Your task to perform on an android device: turn on priority inbox in the gmail app Image 0: 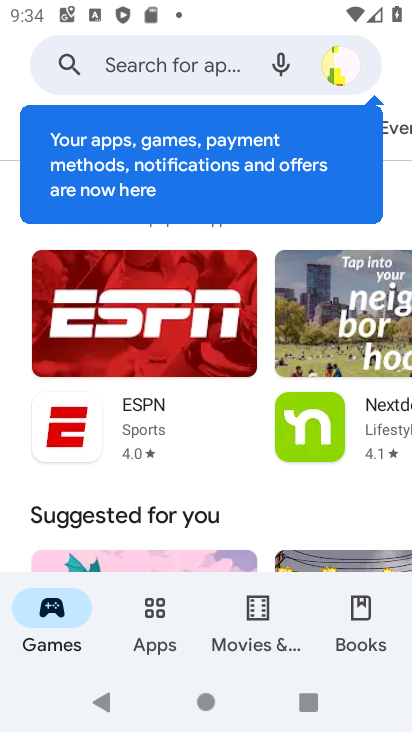
Step 0: press home button
Your task to perform on an android device: turn on priority inbox in the gmail app Image 1: 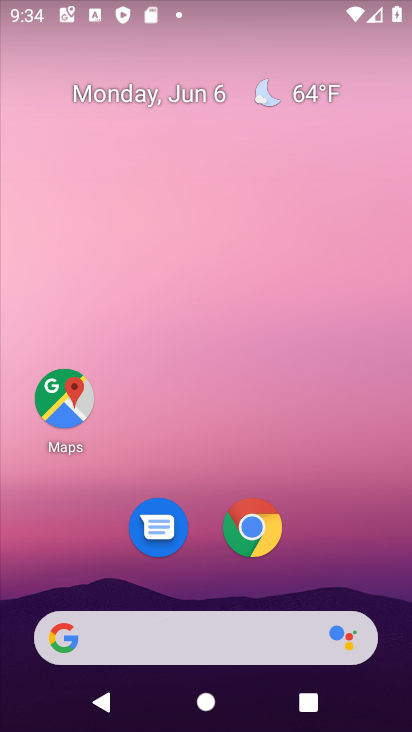
Step 1: drag from (227, 449) to (267, 210)
Your task to perform on an android device: turn on priority inbox in the gmail app Image 2: 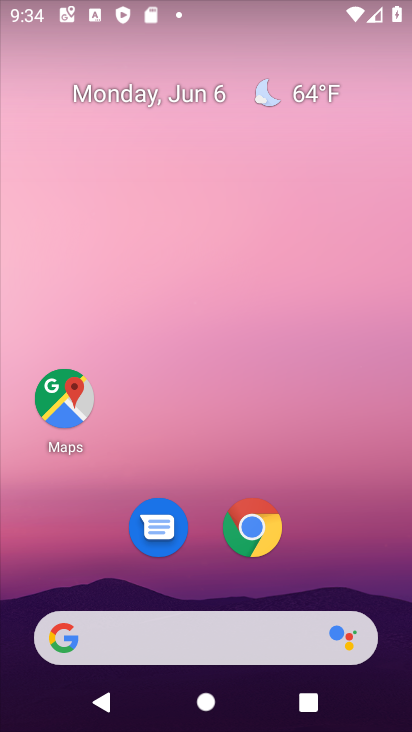
Step 2: drag from (239, 570) to (289, 175)
Your task to perform on an android device: turn on priority inbox in the gmail app Image 3: 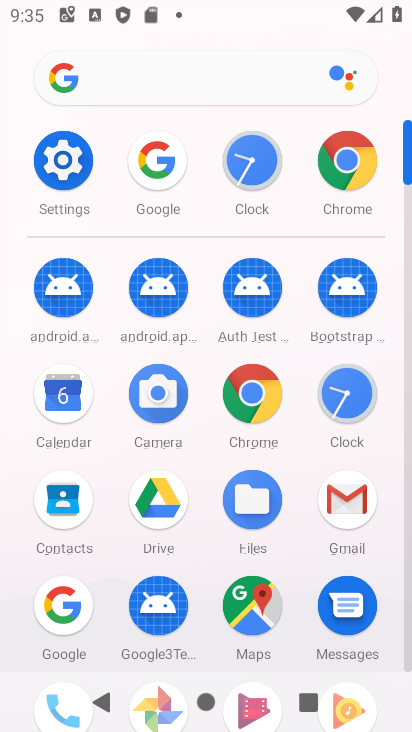
Step 3: click (351, 507)
Your task to perform on an android device: turn on priority inbox in the gmail app Image 4: 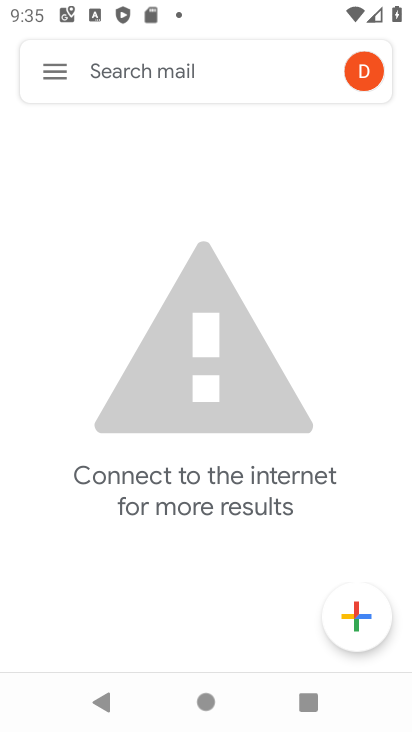
Step 4: click (60, 87)
Your task to perform on an android device: turn on priority inbox in the gmail app Image 5: 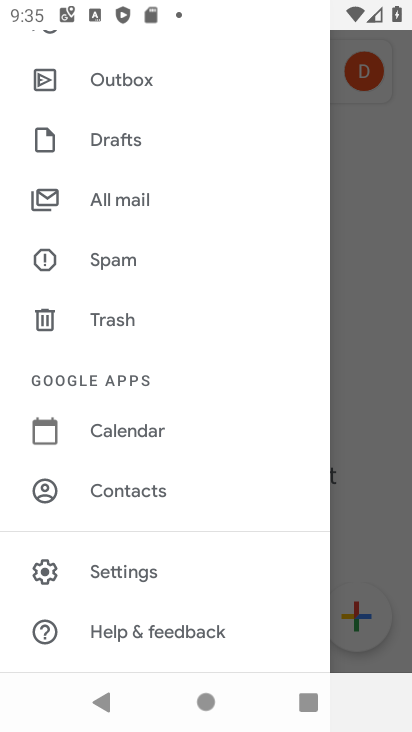
Step 5: click (136, 568)
Your task to perform on an android device: turn on priority inbox in the gmail app Image 6: 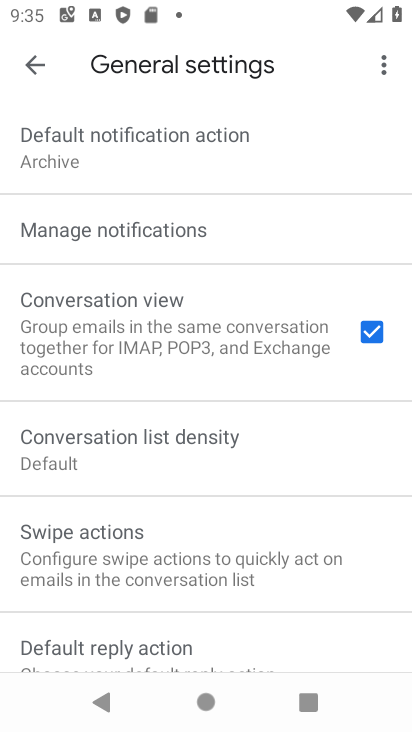
Step 6: click (24, 64)
Your task to perform on an android device: turn on priority inbox in the gmail app Image 7: 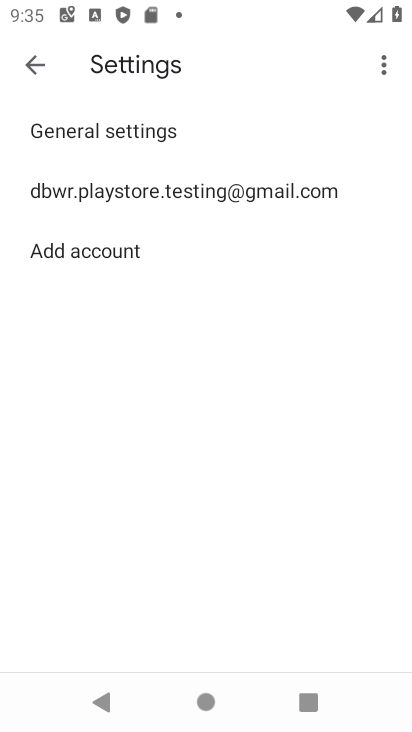
Step 7: click (108, 198)
Your task to perform on an android device: turn on priority inbox in the gmail app Image 8: 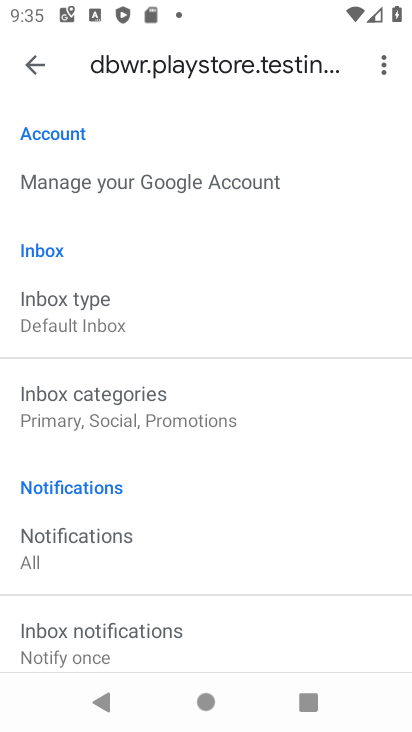
Step 8: click (108, 309)
Your task to perform on an android device: turn on priority inbox in the gmail app Image 9: 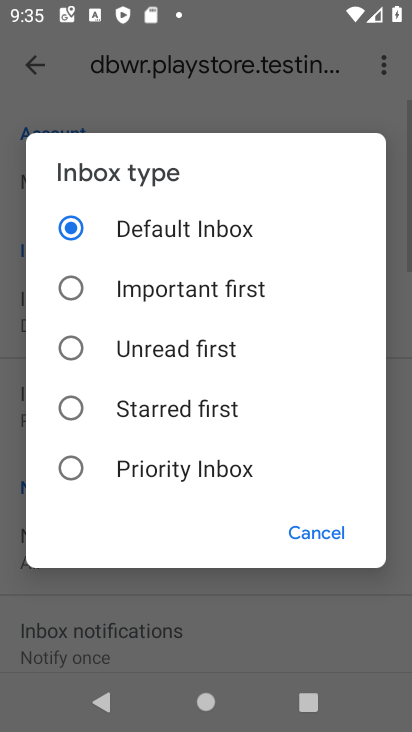
Step 9: click (154, 470)
Your task to perform on an android device: turn on priority inbox in the gmail app Image 10: 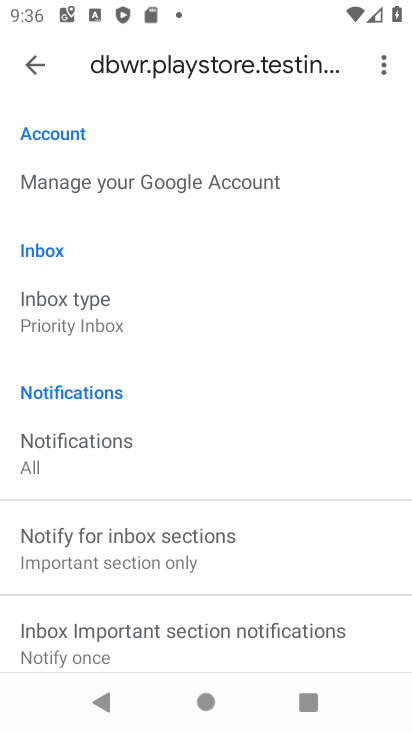
Step 10: task complete